Your task to perform on an android device: Clear all items from cart on newegg. Add "panasonic triple a" to the cart on newegg Image 0: 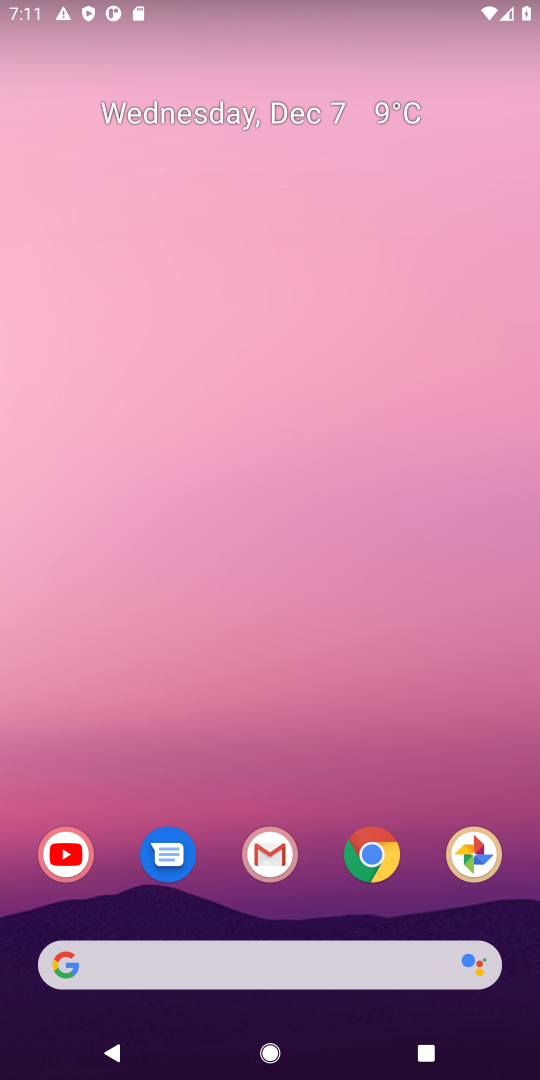
Step 0: click (312, 967)
Your task to perform on an android device: Clear all items from cart on newegg. Add "panasonic triple a" to the cart on newegg Image 1: 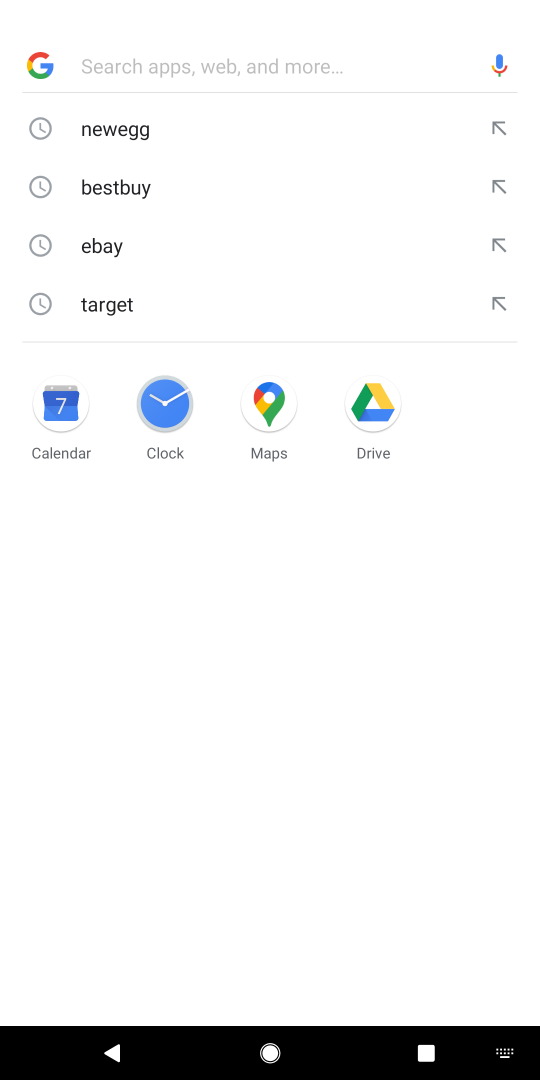
Step 1: click (177, 146)
Your task to perform on an android device: Clear all items from cart on newegg. Add "panasonic triple a" to the cart on newegg Image 2: 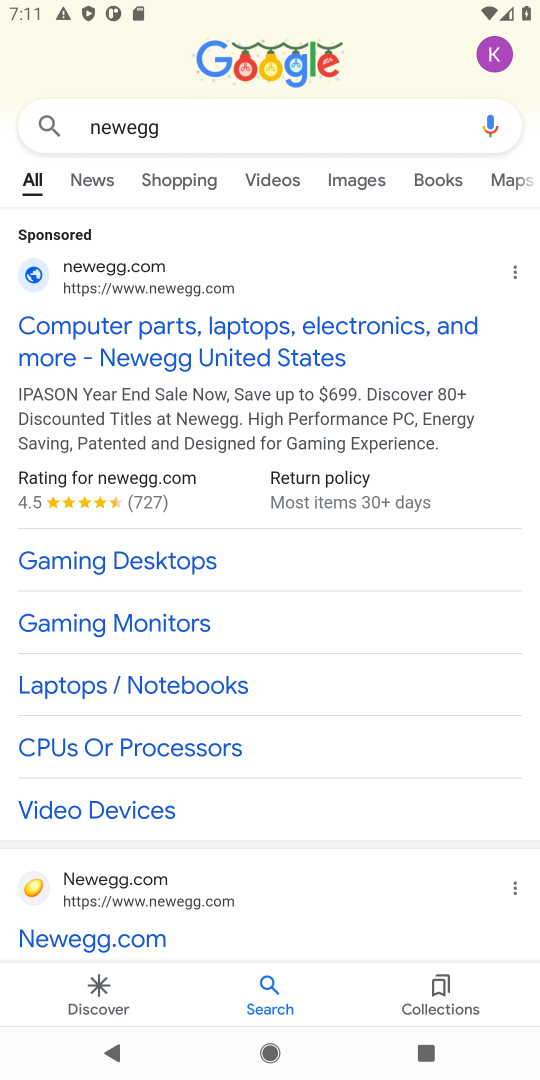
Step 2: click (140, 344)
Your task to perform on an android device: Clear all items from cart on newegg. Add "panasonic triple a" to the cart on newegg Image 3: 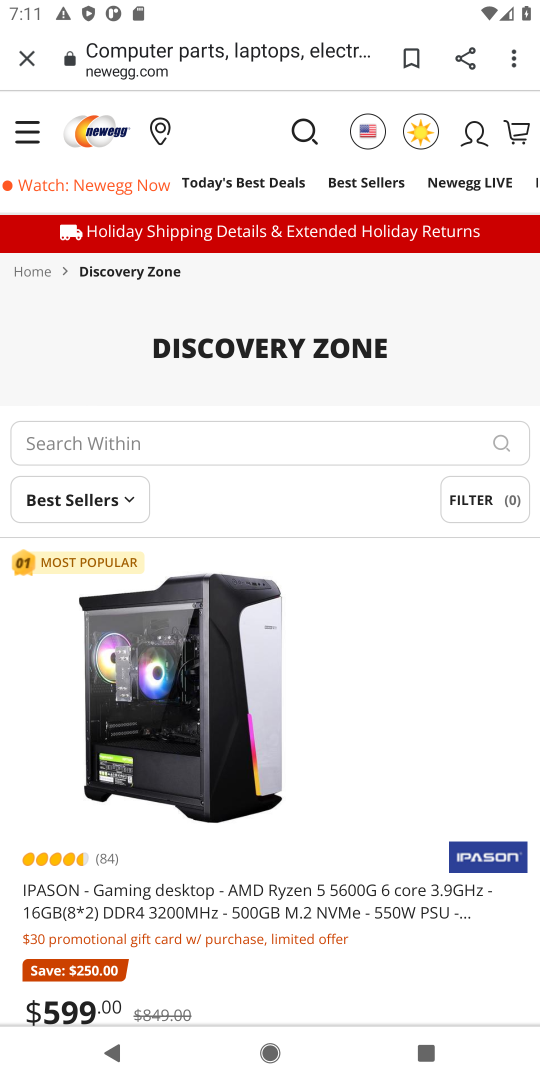
Step 3: click (241, 447)
Your task to perform on an android device: Clear all items from cart on newegg. Add "panasonic triple a" to the cart on newegg Image 4: 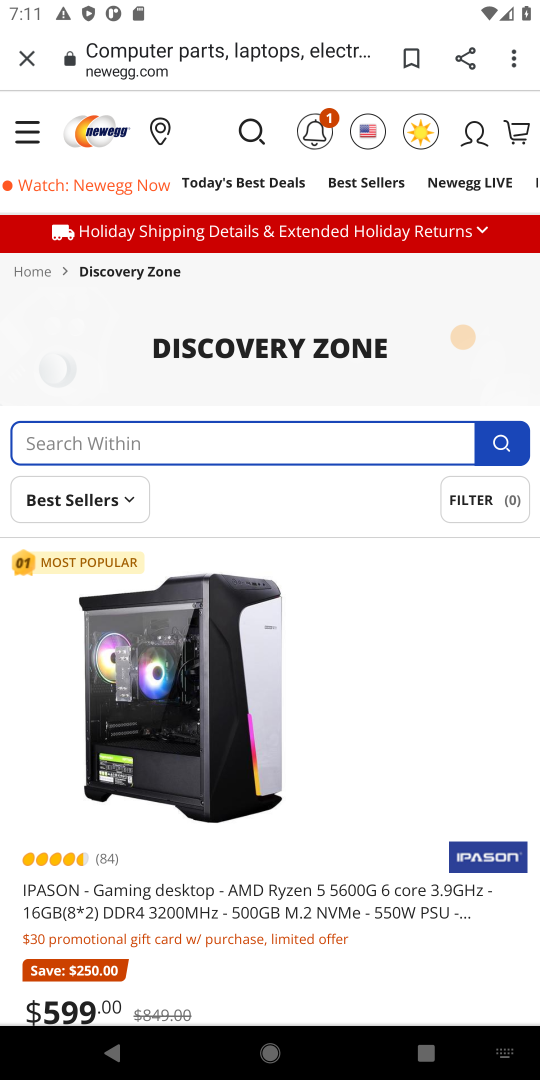
Step 4: type "panasonic triple a"
Your task to perform on an android device: Clear all items from cart on newegg. Add "panasonic triple a" to the cart on newegg Image 5: 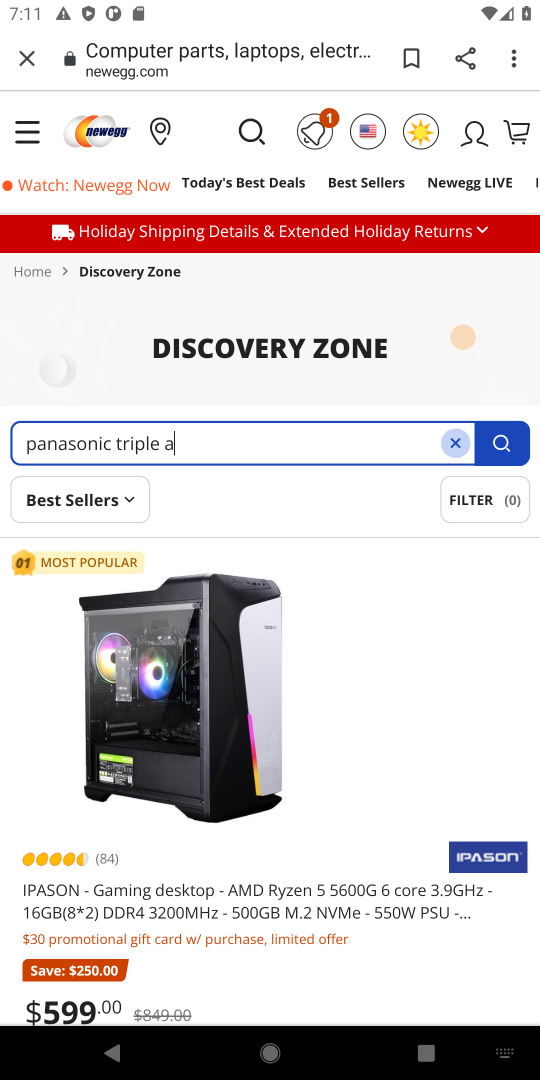
Step 5: click (493, 451)
Your task to perform on an android device: Clear all items from cart on newegg. Add "panasonic triple a" to the cart on newegg Image 6: 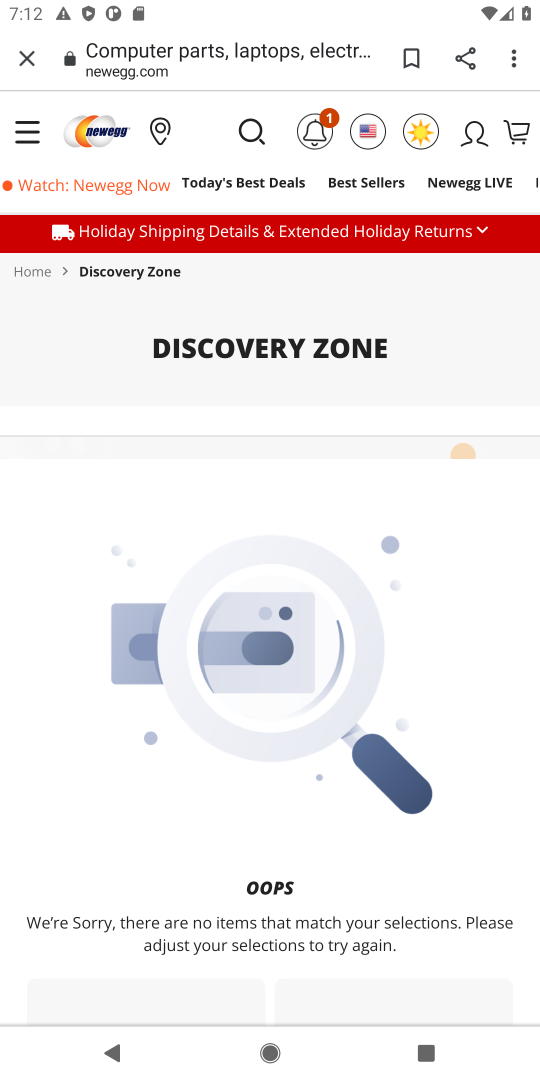
Step 6: task complete